Your task to perform on an android device: choose inbox layout in the gmail app Image 0: 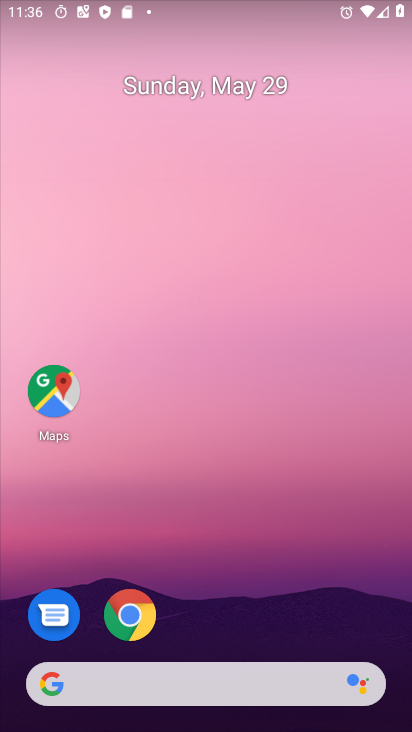
Step 0: drag from (223, 605) to (240, 49)
Your task to perform on an android device: choose inbox layout in the gmail app Image 1: 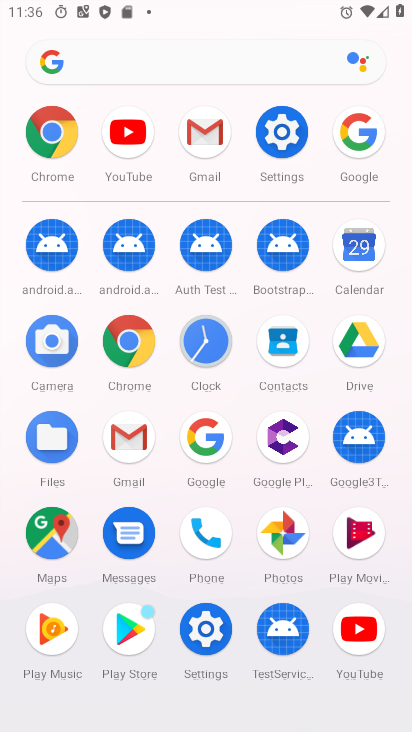
Step 1: click (192, 133)
Your task to perform on an android device: choose inbox layout in the gmail app Image 2: 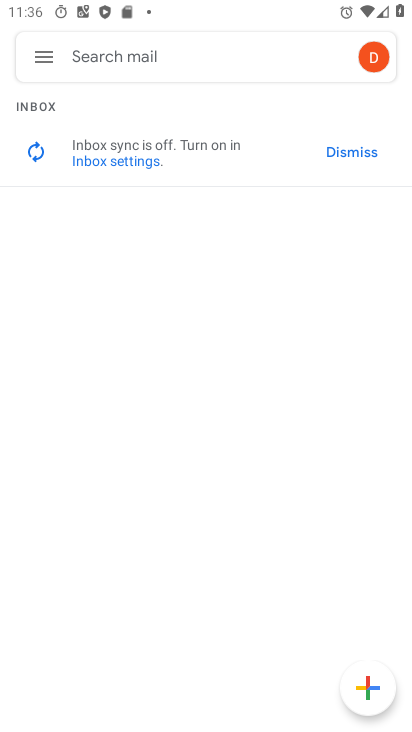
Step 2: click (38, 57)
Your task to perform on an android device: choose inbox layout in the gmail app Image 3: 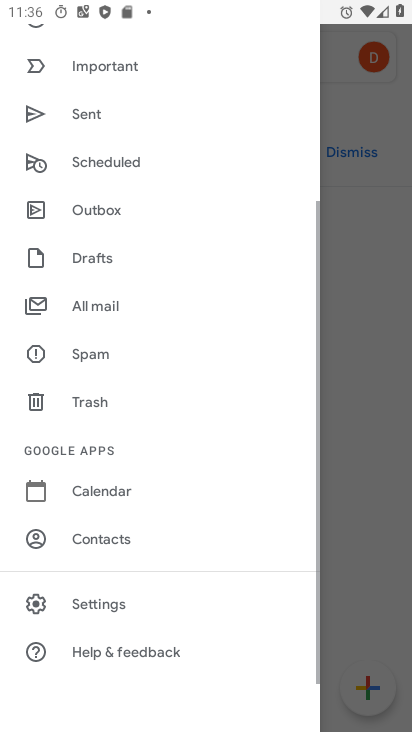
Step 3: click (123, 598)
Your task to perform on an android device: choose inbox layout in the gmail app Image 4: 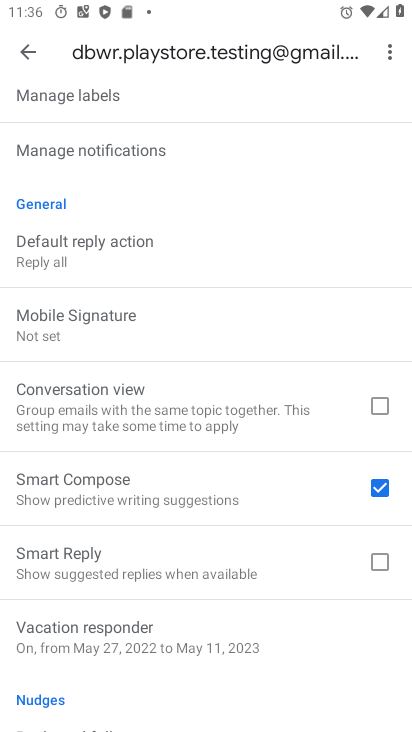
Step 4: drag from (106, 144) to (139, 563)
Your task to perform on an android device: choose inbox layout in the gmail app Image 5: 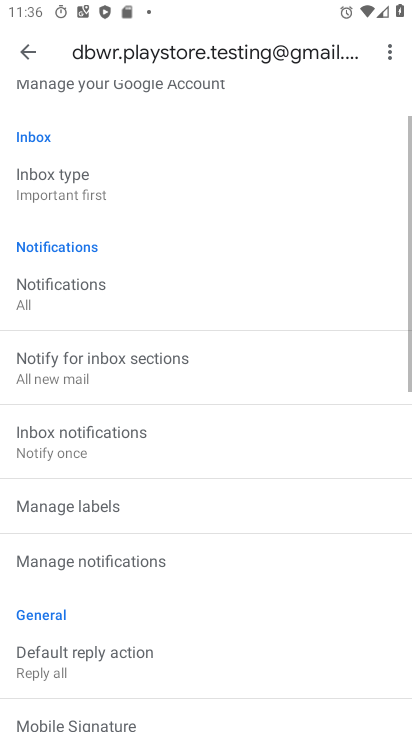
Step 5: drag from (98, 164) to (114, 376)
Your task to perform on an android device: choose inbox layout in the gmail app Image 6: 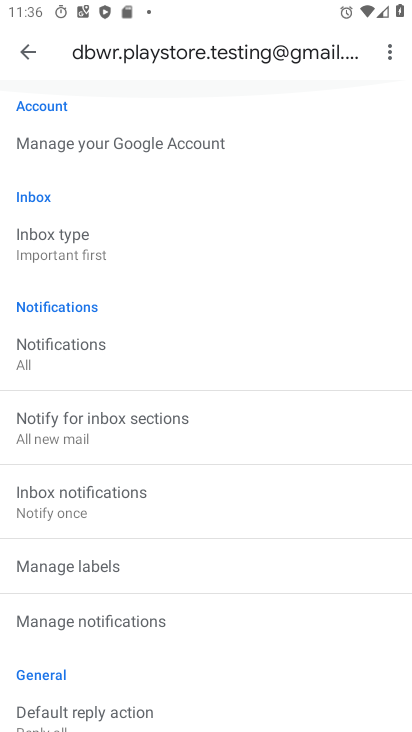
Step 6: click (74, 224)
Your task to perform on an android device: choose inbox layout in the gmail app Image 7: 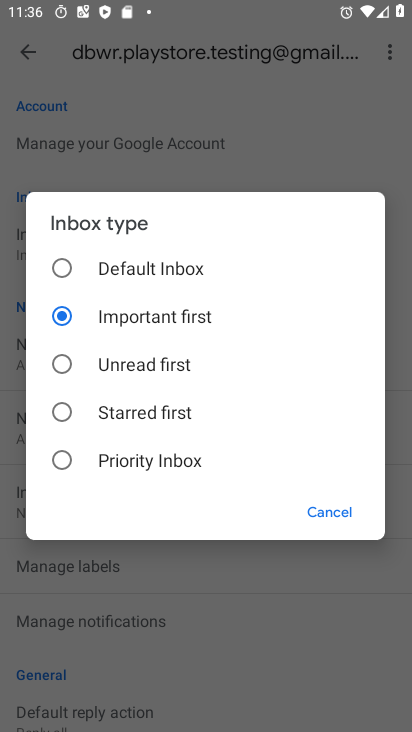
Step 7: click (60, 261)
Your task to perform on an android device: choose inbox layout in the gmail app Image 8: 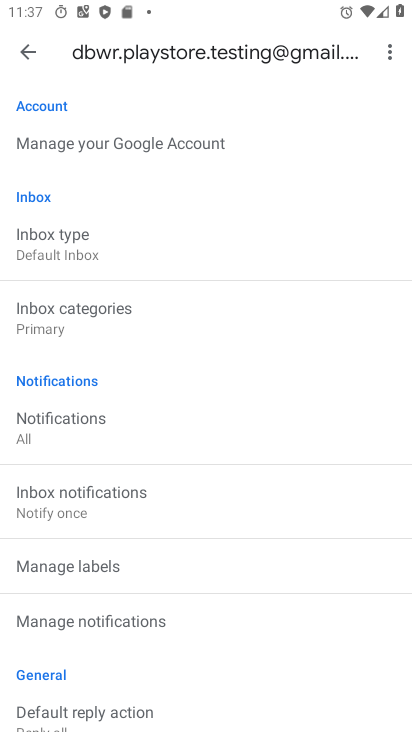
Step 8: task complete